Your task to perform on an android device: Go to Yahoo.com Image 0: 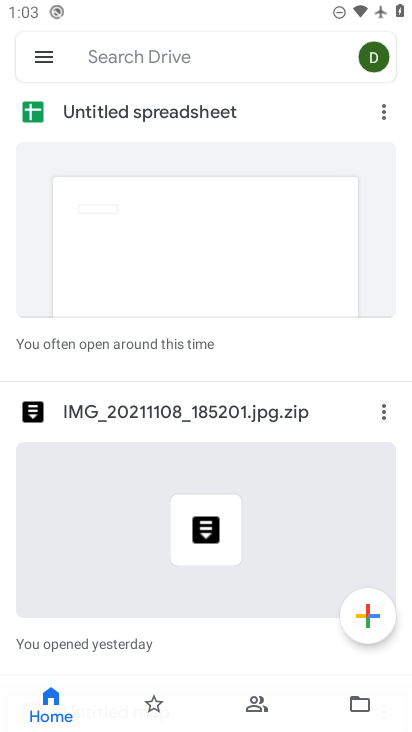
Step 0: press home button
Your task to perform on an android device: Go to Yahoo.com Image 1: 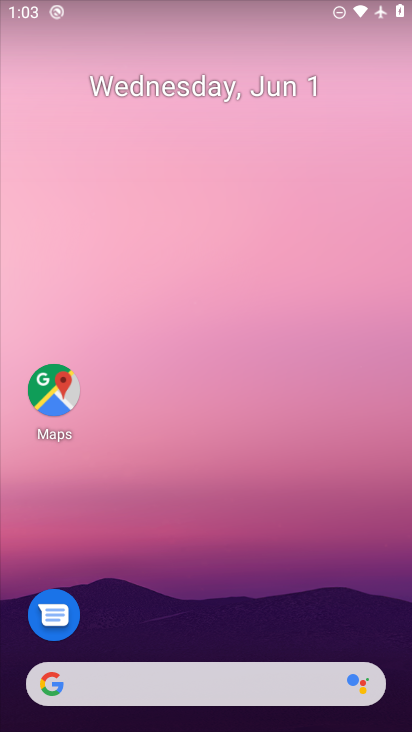
Step 1: drag from (222, 628) to (286, 89)
Your task to perform on an android device: Go to Yahoo.com Image 2: 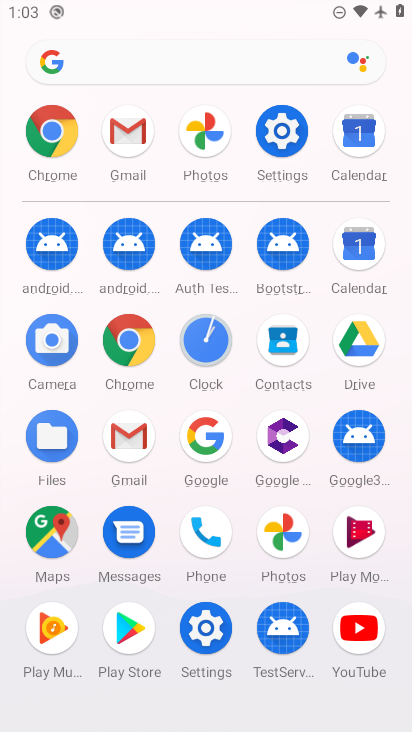
Step 2: click (143, 353)
Your task to perform on an android device: Go to Yahoo.com Image 3: 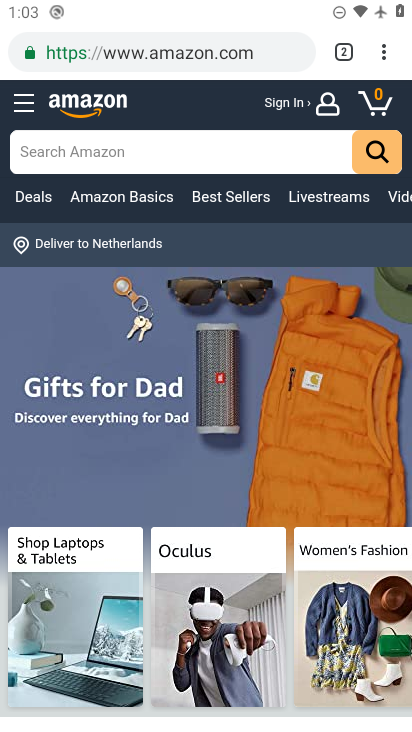
Step 3: click (230, 62)
Your task to perform on an android device: Go to Yahoo.com Image 4: 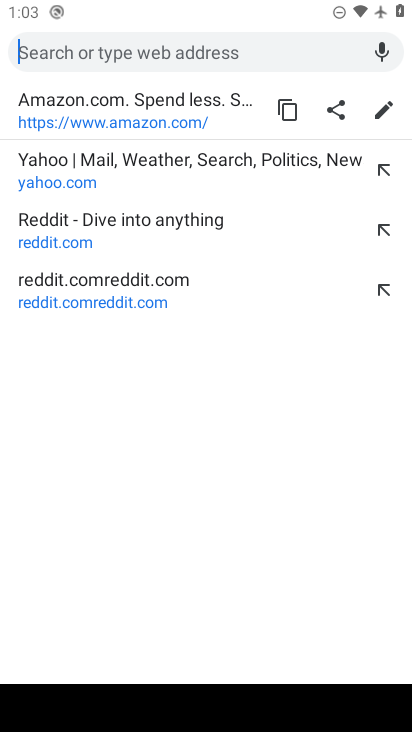
Step 4: type "yahoo.com"
Your task to perform on an android device: Go to Yahoo.com Image 5: 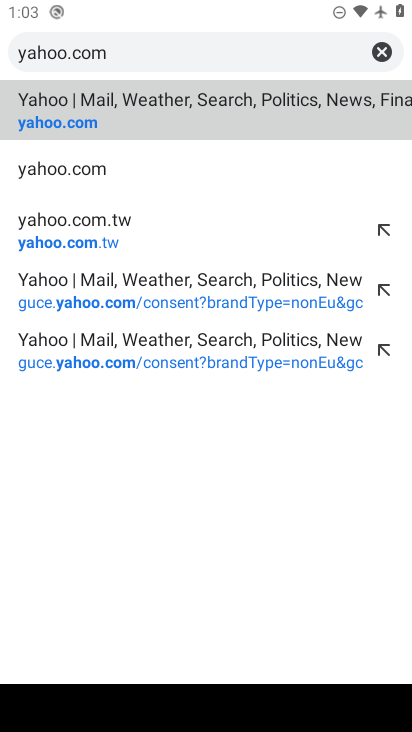
Step 5: click (112, 165)
Your task to perform on an android device: Go to Yahoo.com Image 6: 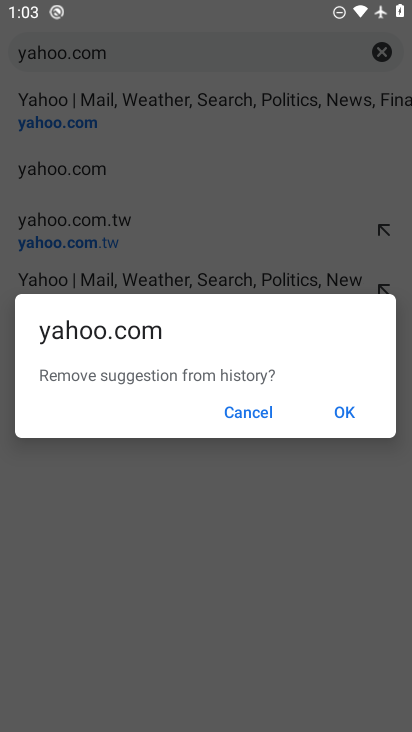
Step 6: click (252, 414)
Your task to perform on an android device: Go to Yahoo.com Image 7: 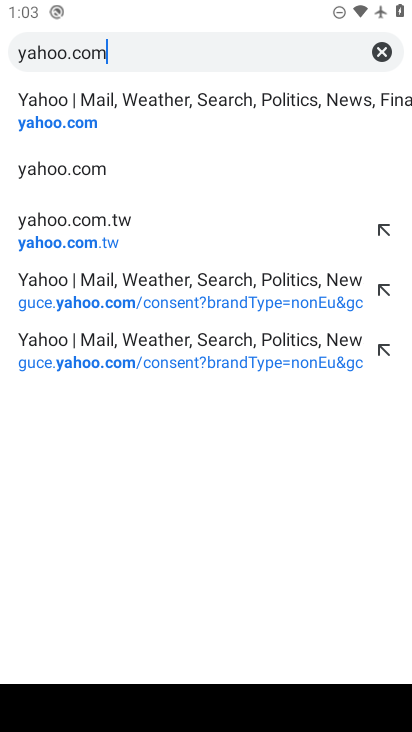
Step 7: click (82, 175)
Your task to perform on an android device: Go to Yahoo.com Image 8: 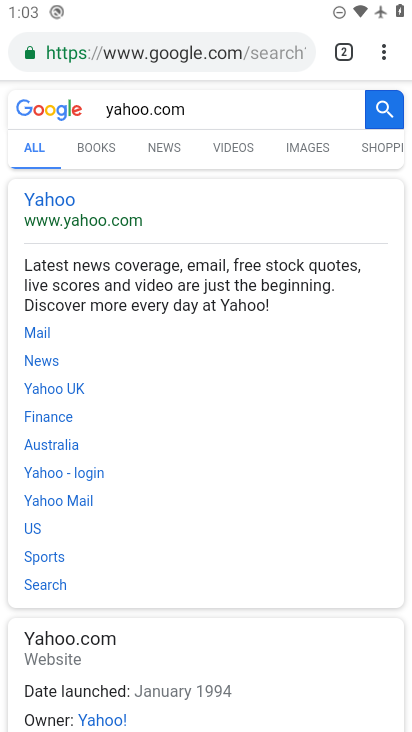
Step 8: click (63, 195)
Your task to perform on an android device: Go to Yahoo.com Image 9: 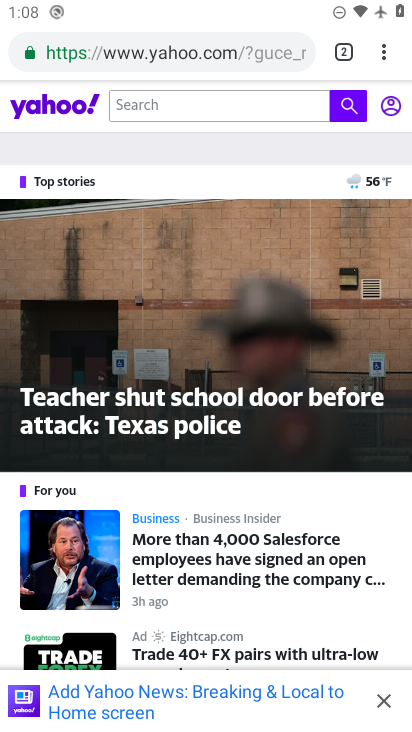
Step 9: task complete